Your task to perform on an android device: check storage Image 0: 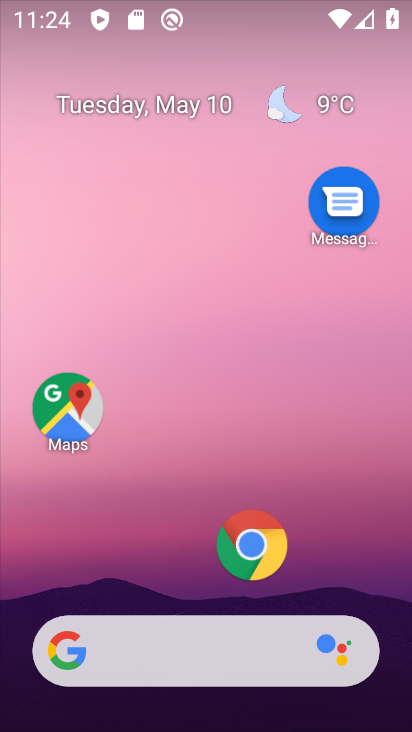
Step 0: drag from (148, 608) to (240, 149)
Your task to perform on an android device: check storage Image 1: 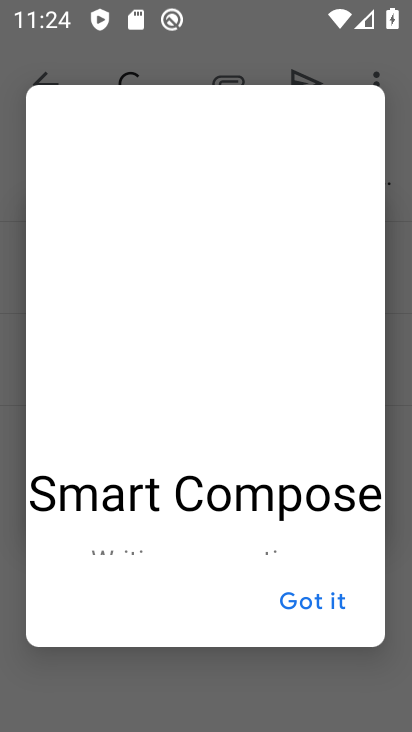
Step 1: press home button
Your task to perform on an android device: check storage Image 2: 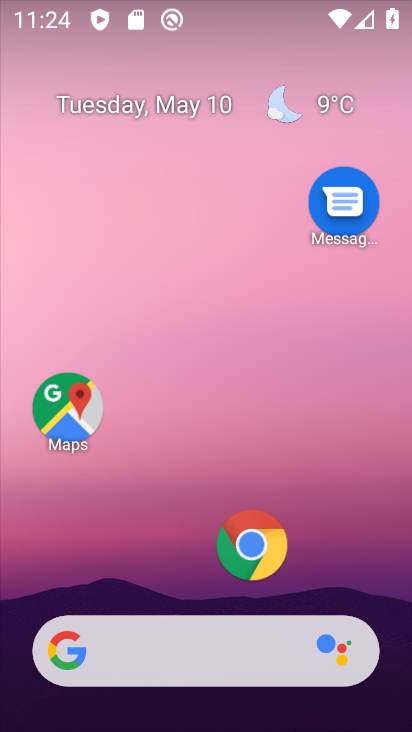
Step 2: drag from (99, 607) to (224, 86)
Your task to perform on an android device: check storage Image 3: 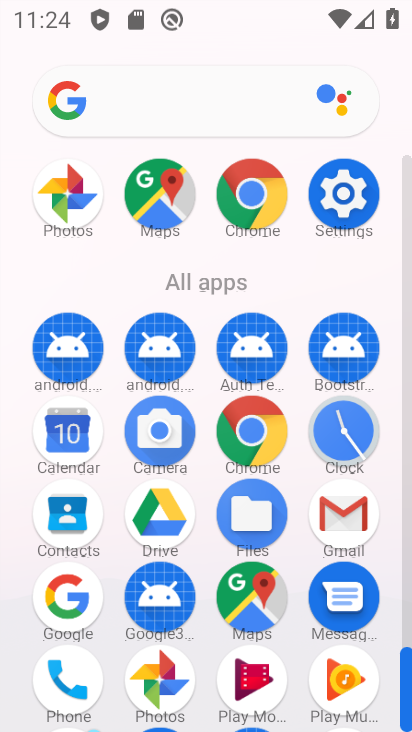
Step 3: drag from (152, 628) to (209, 385)
Your task to perform on an android device: check storage Image 4: 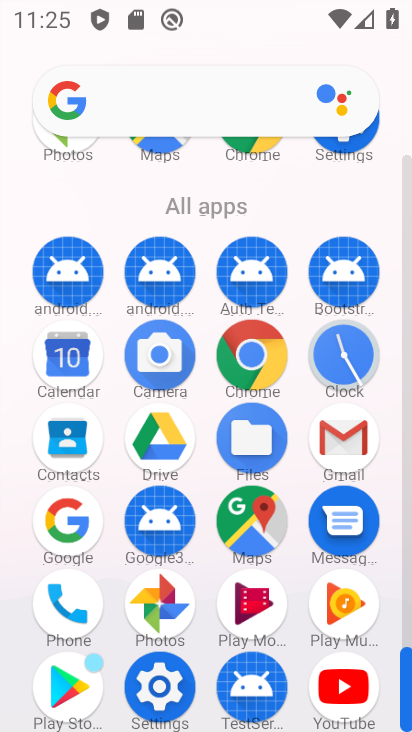
Step 4: click (169, 684)
Your task to perform on an android device: check storage Image 5: 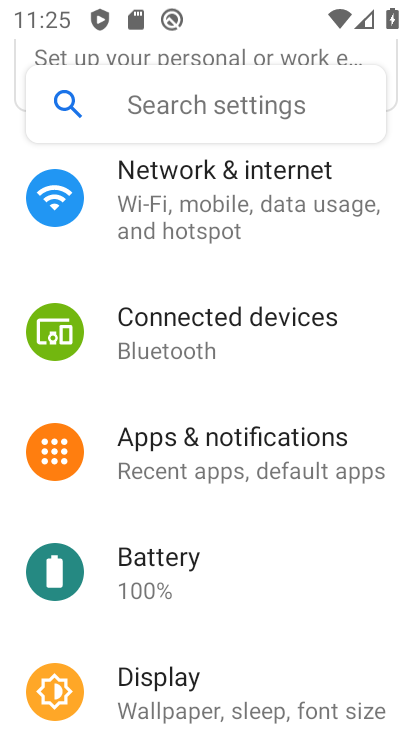
Step 5: drag from (205, 578) to (329, 119)
Your task to perform on an android device: check storage Image 6: 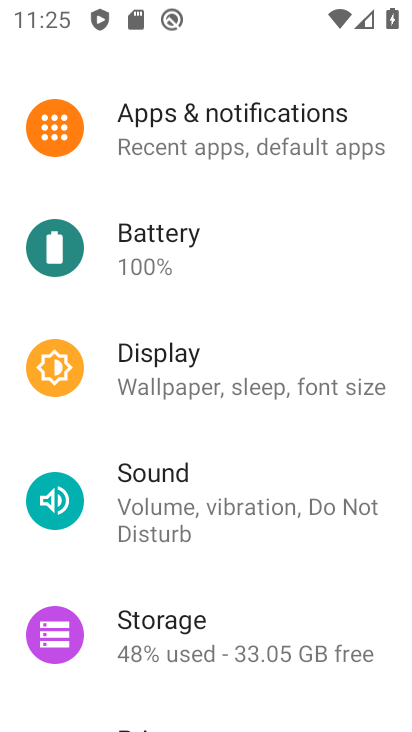
Step 6: click (171, 631)
Your task to perform on an android device: check storage Image 7: 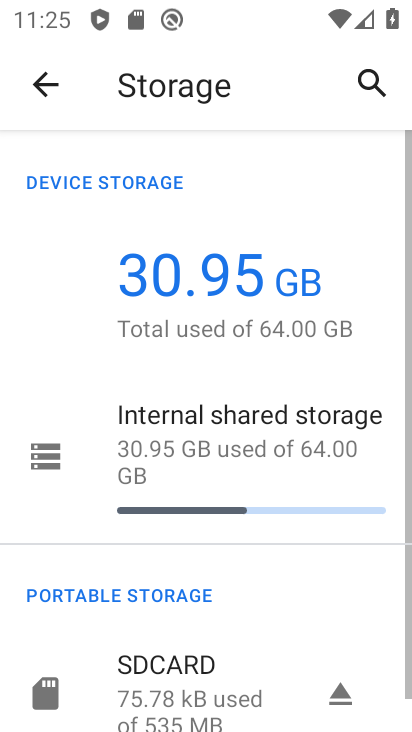
Step 7: click (149, 473)
Your task to perform on an android device: check storage Image 8: 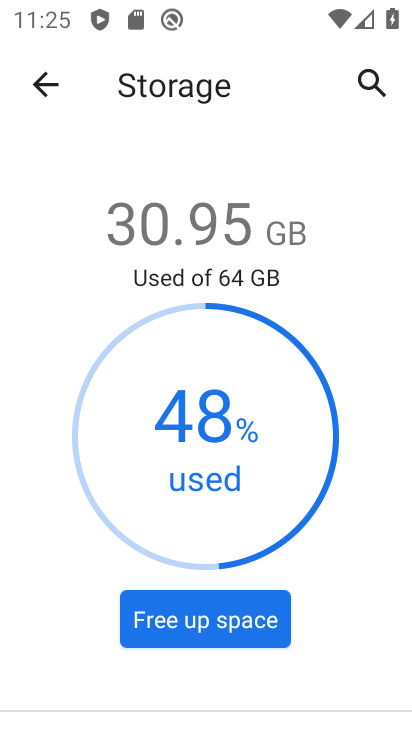
Step 8: task complete